Your task to perform on an android device: Open Youtube and go to "Your channel" Image 0: 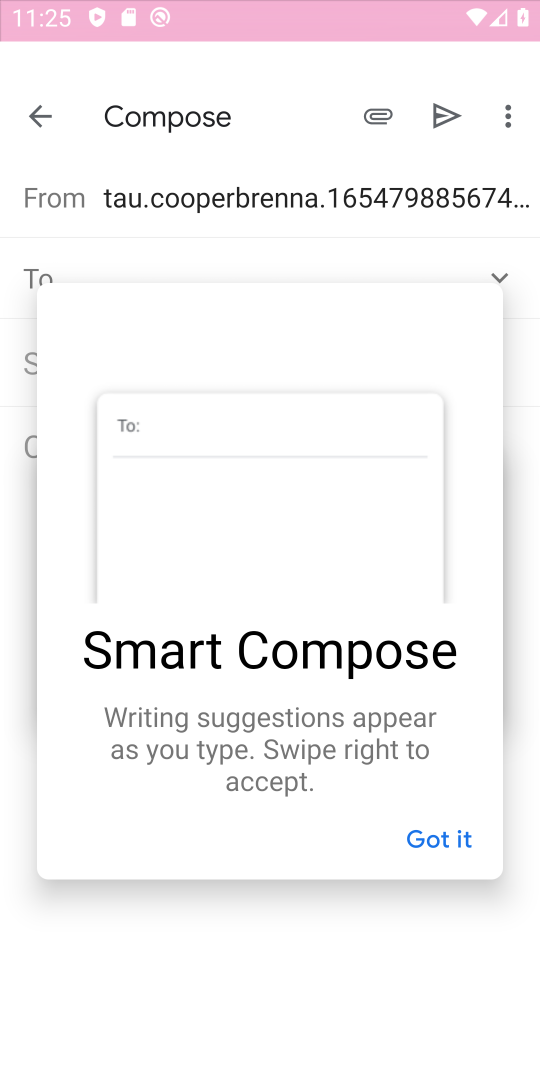
Step 0: drag from (272, 876) to (215, 136)
Your task to perform on an android device: Open Youtube and go to "Your channel" Image 1: 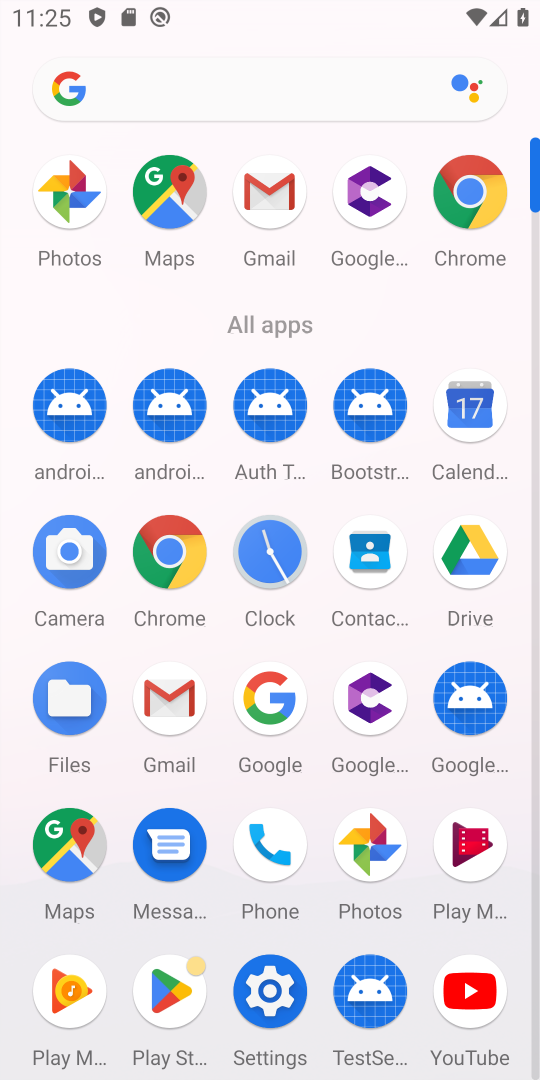
Step 1: click (479, 1006)
Your task to perform on an android device: Open Youtube and go to "Your channel" Image 2: 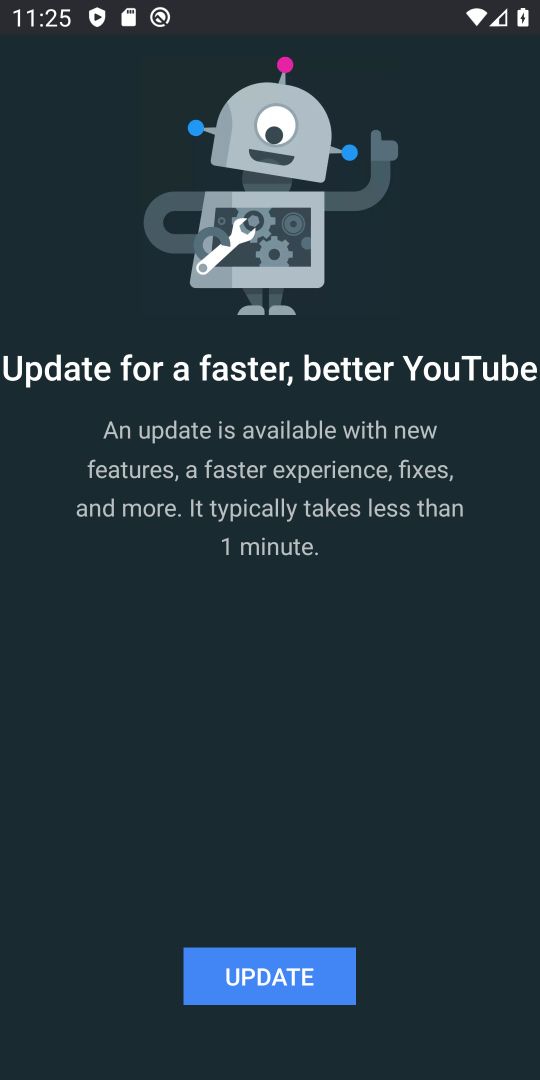
Step 2: click (287, 987)
Your task to perform on an android device: Open Youtube and go to "Your channel" Image 3: 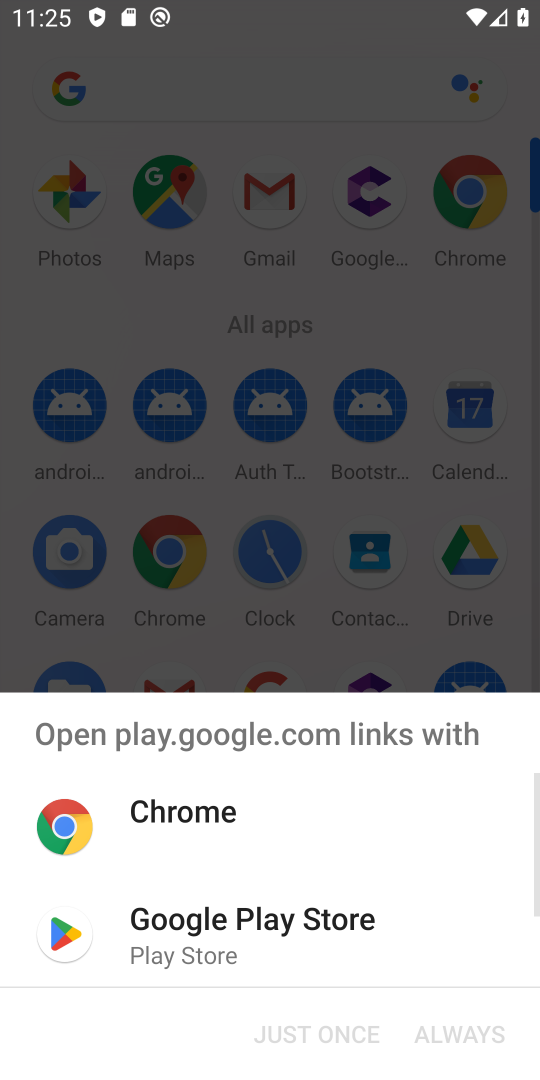
Step 3: click (190, 906)
Your task to perform on an android device: Open Youtube and go to "Your channel" Image 4: 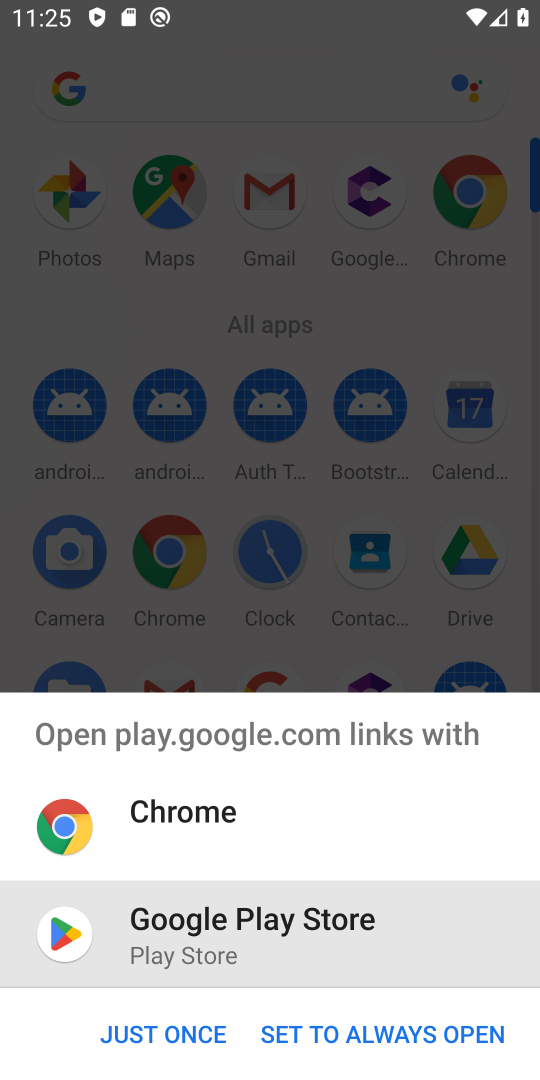
Step 4: click (181, 1033)
Your task to perform on an android device: Open Youtube and go to "Your channel" Image 5: 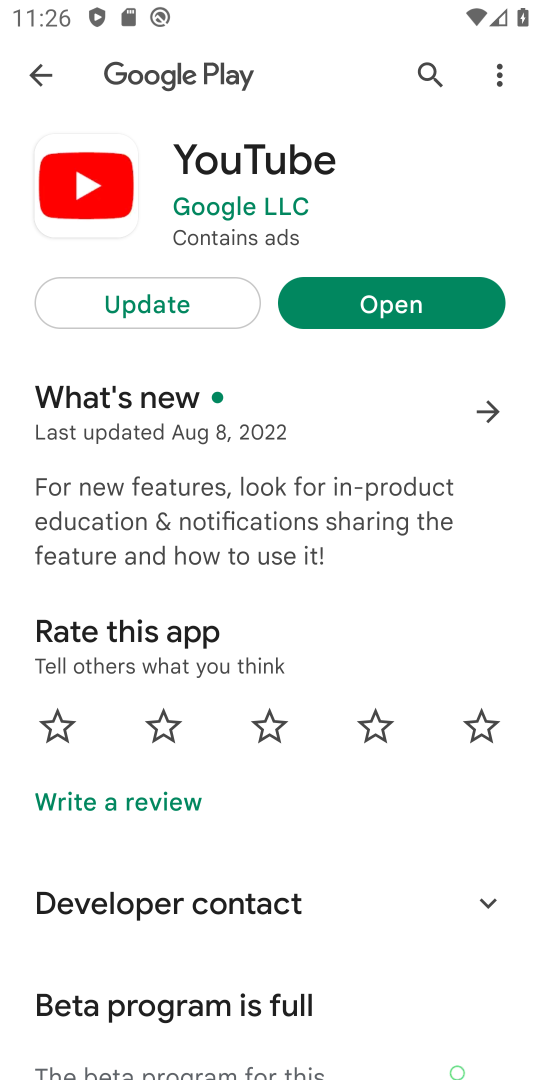
Step 5: click (179, 307)
Your task to perform on an android device: Open Youtube and go to "Your channel" Image 6: 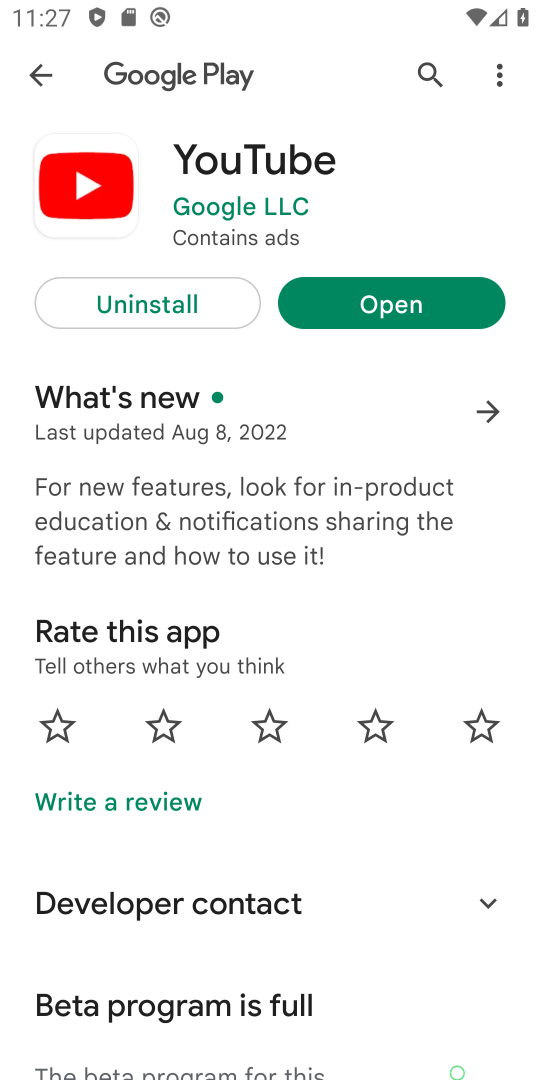
Step 6: click (379, 310)
Your task to perform on an android device: Open Youtube and go to "Your channel" Image 7: 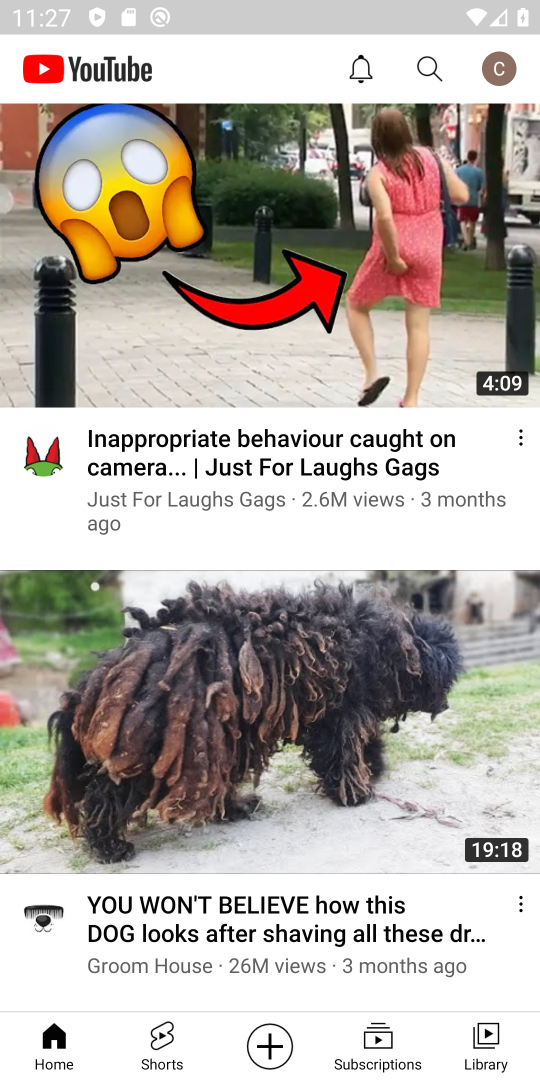
Step 7: click (498, 67)
Your task to perform on an android device: Open Youtube and go to "Your channel" Image 8: 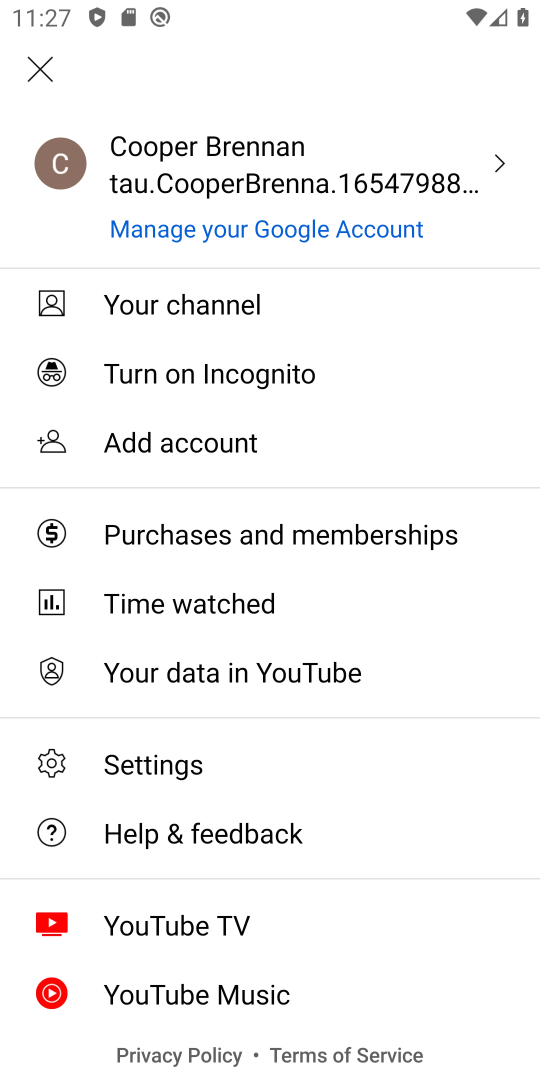
Step 8: click (228, 294)
Your task to perform on an android device: Open Youtube and go to "Your channel" Image 9: 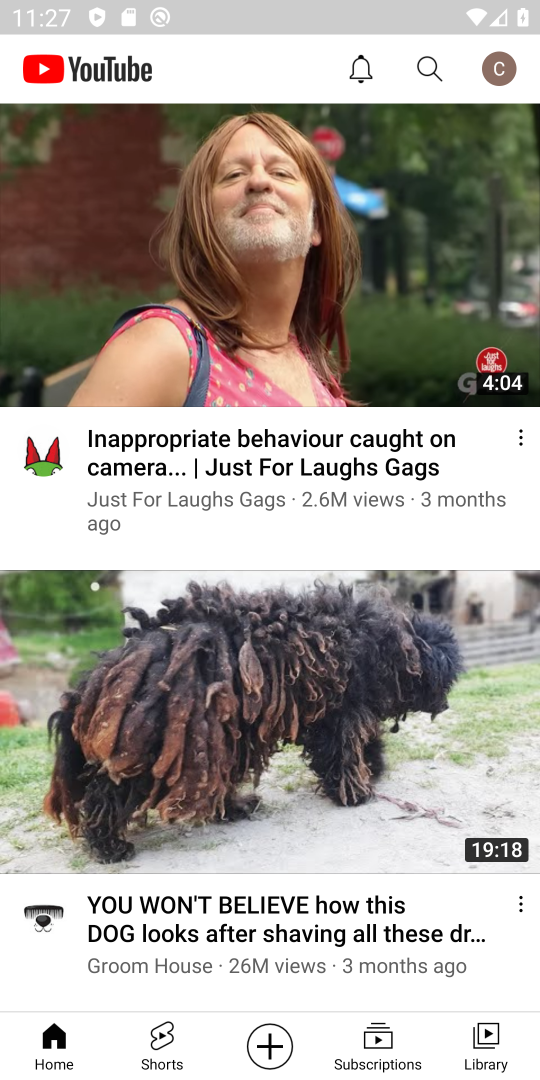
Step 9: task complete